Your task to perform on an android device: Go to Maps Image 0: 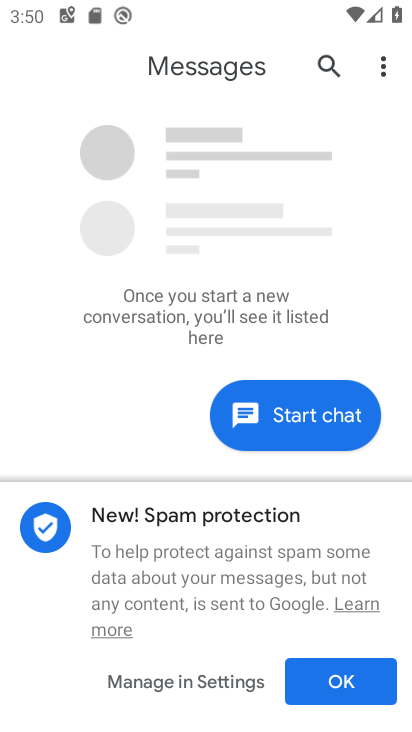
Step 0: press home button
Your task to perform on an android device: Go to Maps Image 1: 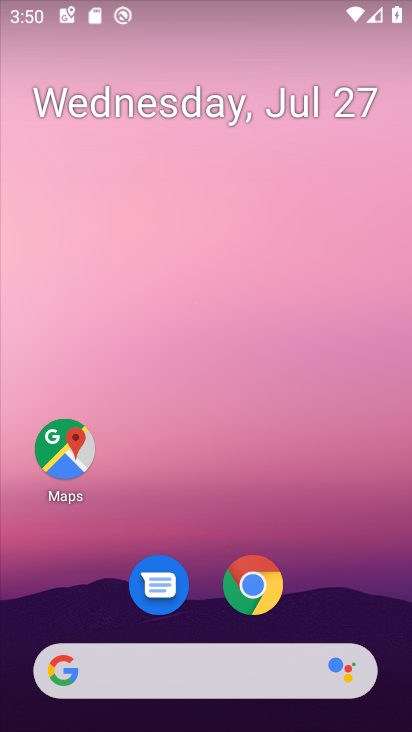
Step 1: click (61, 435)
Your task to perform on an android device: Go to Maps Image 2: 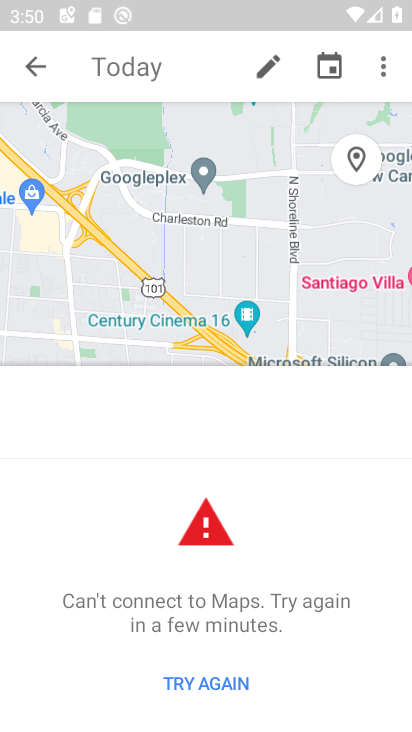
Step 2: click (235, 679)
Your task to perform on an android device: Go to Maps Image 3: 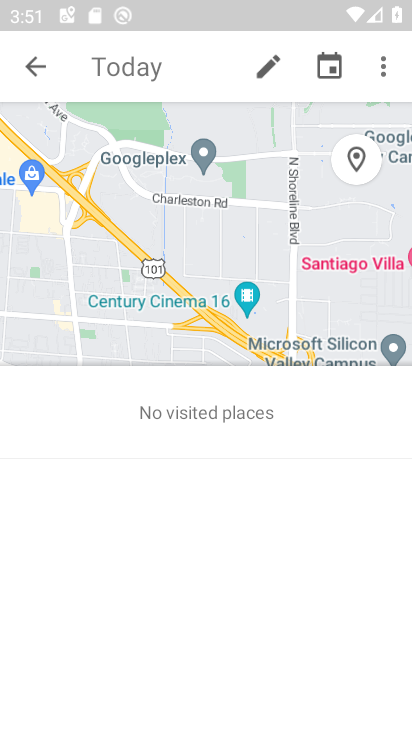
Step 3: click (29, 57)
Your task to perform on an android device: Go to Maps Image 4: 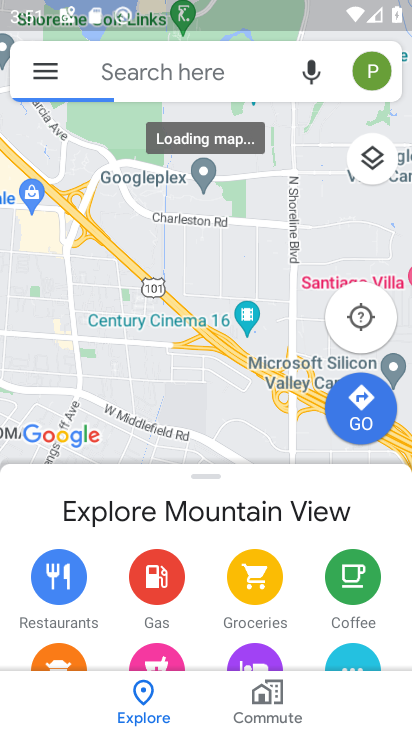
Step 4: task complete